Your task to perform on an android device: Clear the shopping cart on walmart.com. Search for "macbook pro" on walmart.com, select the first entry, and add it to the cart. Image 0: 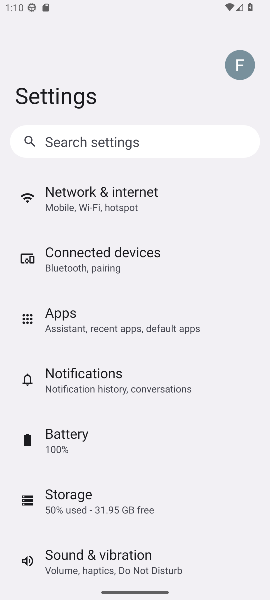
Step 0: press home button
Your task to perform on an android device: Clear the shopping cart on walmart.com. Search for "macbook pro" on walmart.com, select the first entry, and add it to the cart. Image 1: 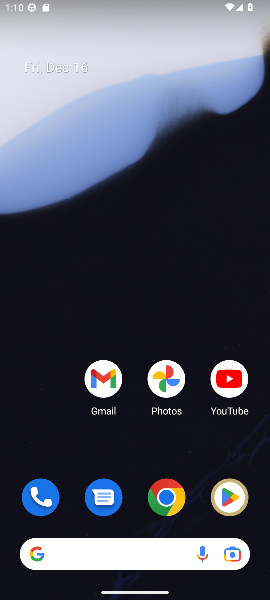
Step 1: click (170, 499)
Your task to perform on an android device: Clear the shopping cart on walmart.com. Search for "macbook pro" on walmart.com, select the first entry, and add it to the cart. Image 2: 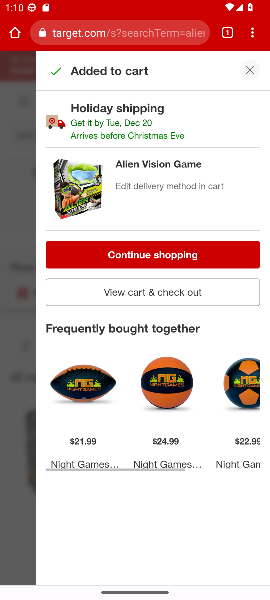
Step 2: click (110, 30)
Your task to perform on an android device: Clear the shopping cart on walmart.com. Search for "macbook pro" on walmart.com, select the first entry, and add it to the cart. Image 3: 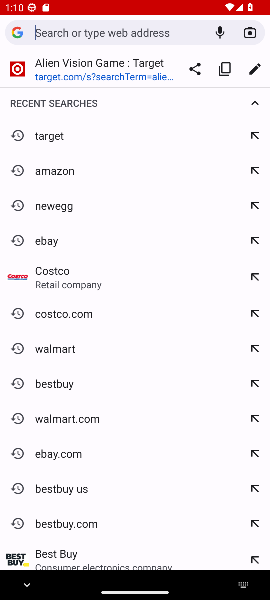
Step 3: click (59, 346)
Your task to perform on an android device: Clear the shopping cart on walmart.com. Search for "macbook pro" on walmart.com, select the first entry, and add it to the cart. Image 4: 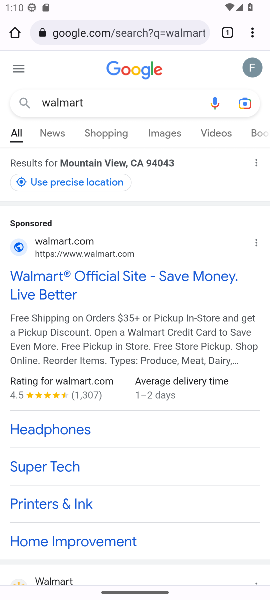
Step 4: click (93, 280)
Your task to perform on an android device: Clear the shopping cart on walmart.com. Search for "macbook pro" on walmart.com, select the first entry, and add it to the cart. Image 5: 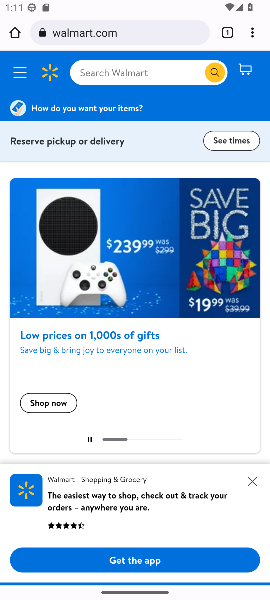
Step 5: click (163, 74)
Your task to perform on an android device: Clear the shopping cart on walmart.com. Search for "macbook pro" on walmart.com, select the first entry, and add it to the cart. Image 6: 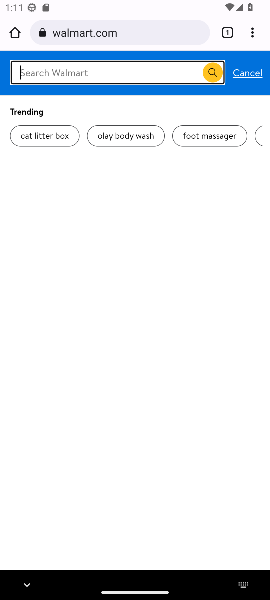
Step 6: type "macbook pro"
Your task to perform on an android device: Clear the shopping cart on walmart.com. Search for "macbook pro" on walmart.com, select the first entry, and add it to the cart. Image 7: 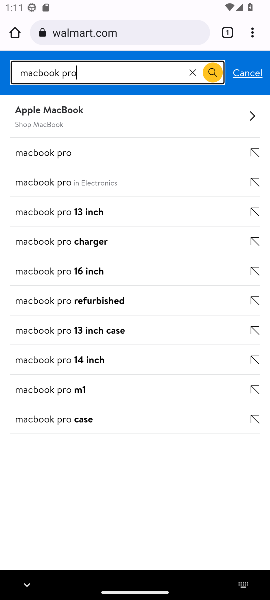
Step 7: click (79, 116)
Your task to perform on an android device: Clear the shopping cart on walmart.com. Search for "macbook pro" on walmart.com, select the first entry, and add it to the cart. Image 8: 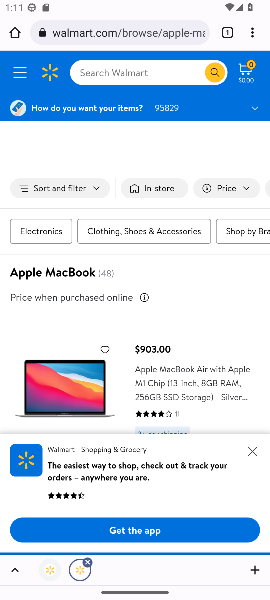
Step 8: click (198, 463)
Your task to perform on an android device: Clear the shopping cart on walmart.com. Search for "macbook pro" on walmart.com, select the first entry, and add it to the cart. Image 9: 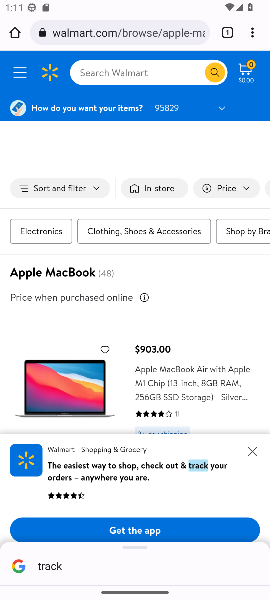
Step 9: click (249, 449)
Your task to perform on an android device: Clear the shopping cart on walmart.com. Search for "macbook pro" on walmart.com, select the first entry, and add it to the cart. Image 10: 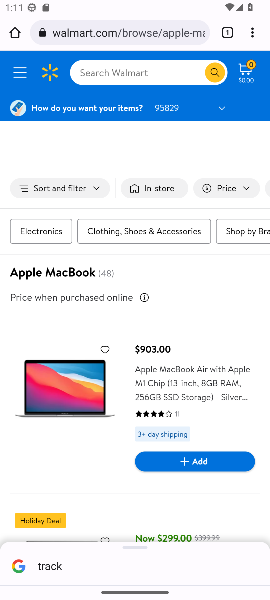
Step 10: click (204, 462)
Your task to perform on an android device: Clear the shopping cart on walmart.com. Search for "macbook pro" on walmart.com, select the first entry, and add it to the cart. Image 11: 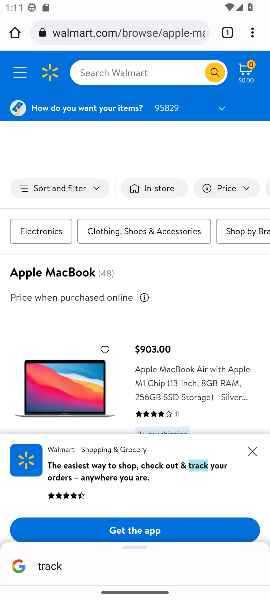
Step 11: click (252, 450)
Your task to perform on an android device: Clear the shopping cart on walmart.com. Search for "macbook pro" on walmart.com, select the first entry, and add it to the cart. Image 12: 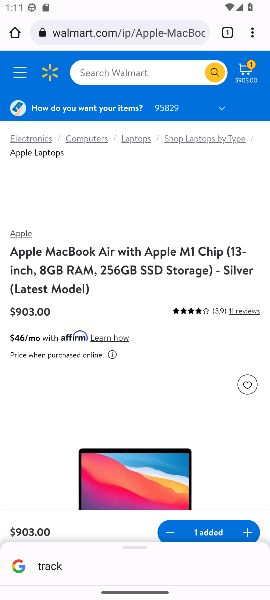
Step 12: task complete